Your task to perform on an android device: Open the stopwatch Image 0: 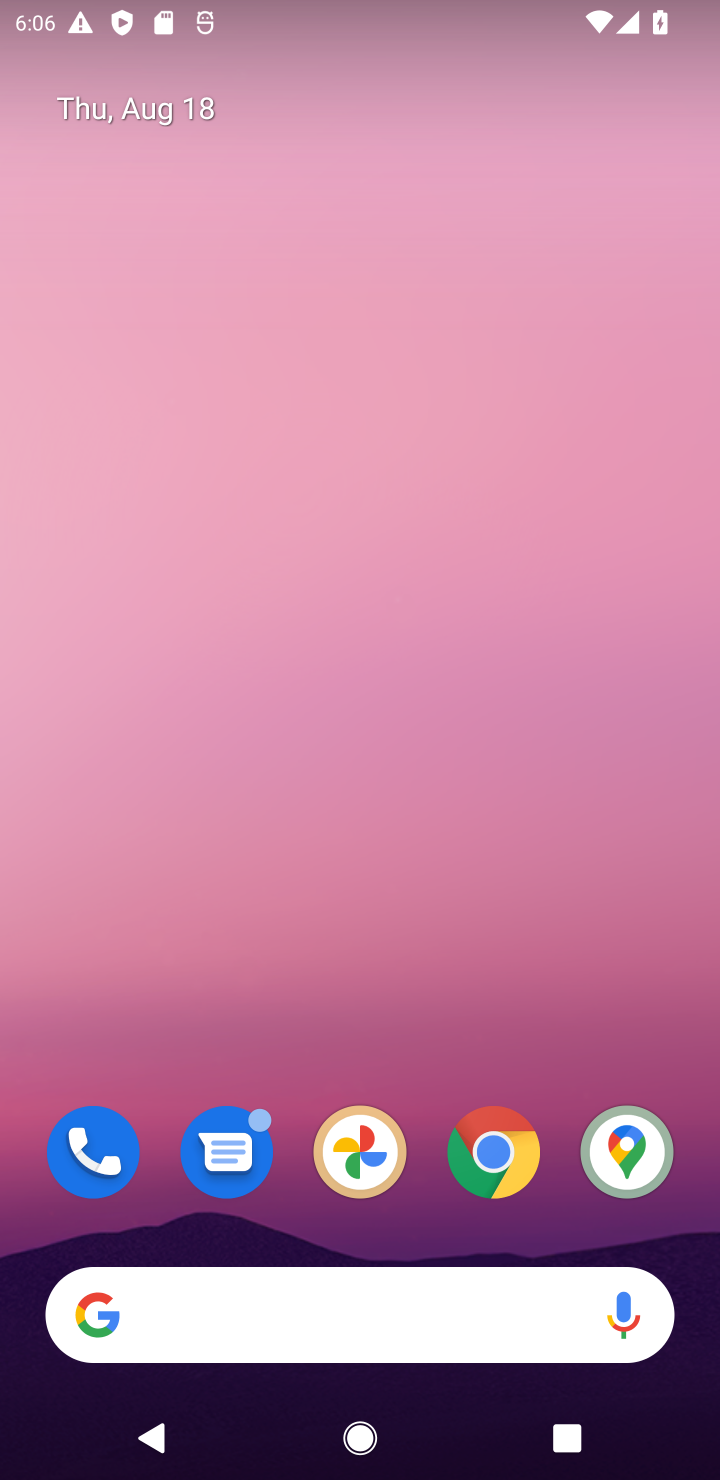
Step 0: press home button
Your task to perform on an android device: Open the stopwatch Image 1: 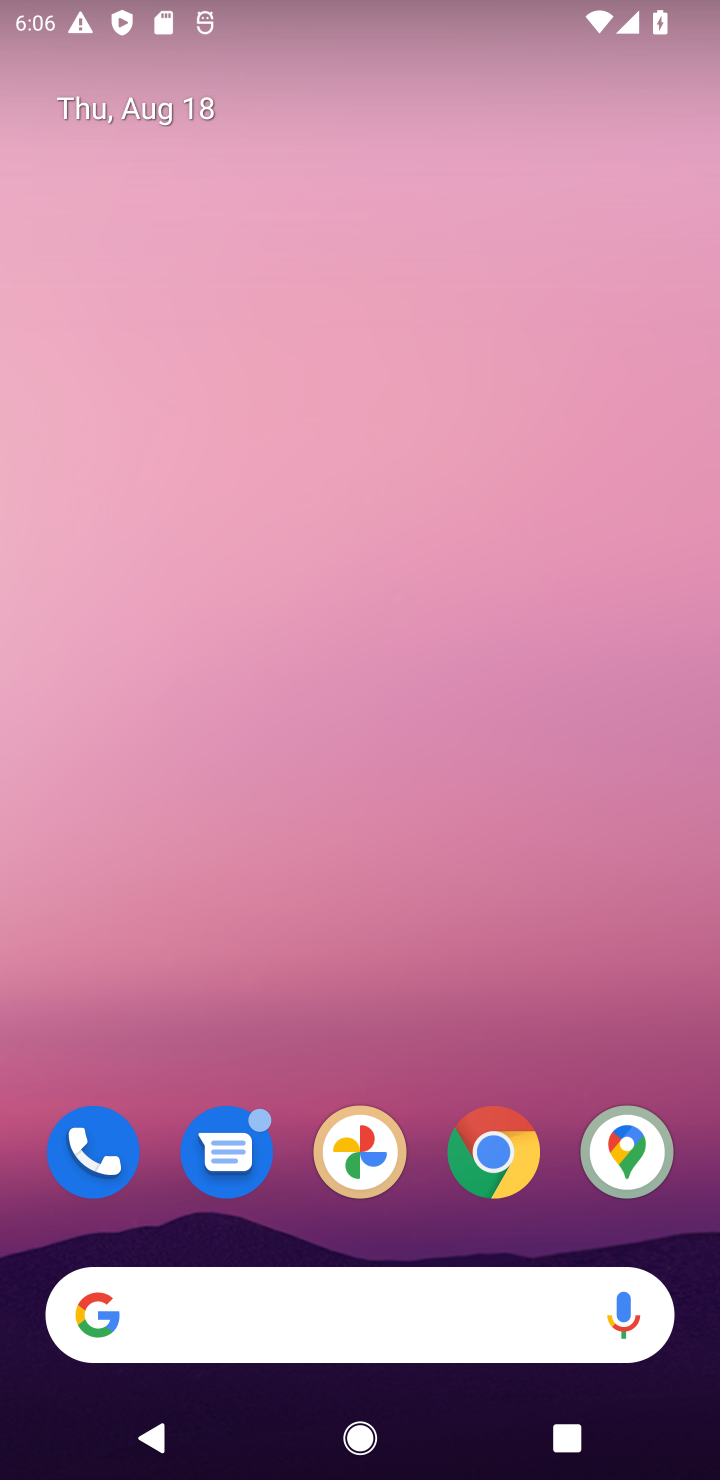
Step 1: drag from (438, 1212) to (498, 265)
Your task to perform on an android device: Open the stopwatch Image 2: 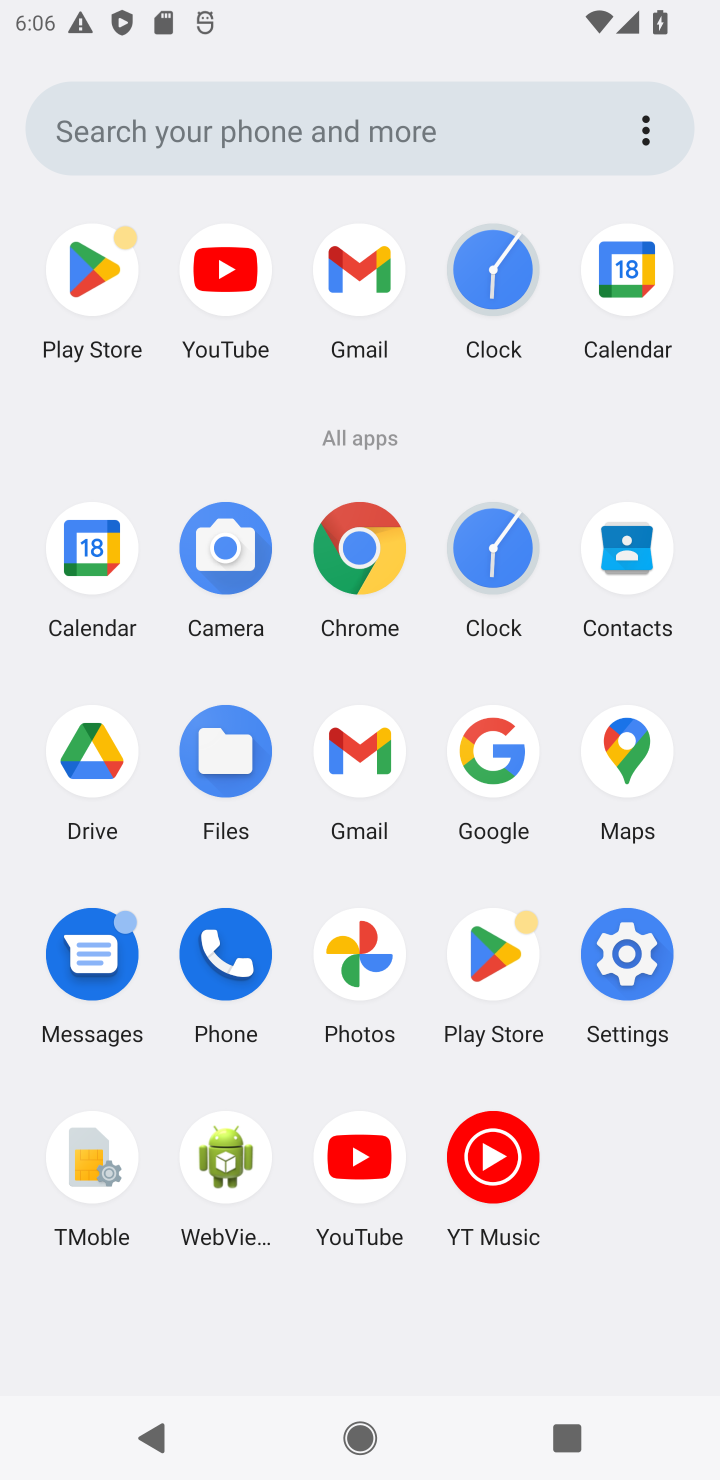
Step 2: click (515, 562)
Your task to perform on an android device: Open the stopwatch Image 3: 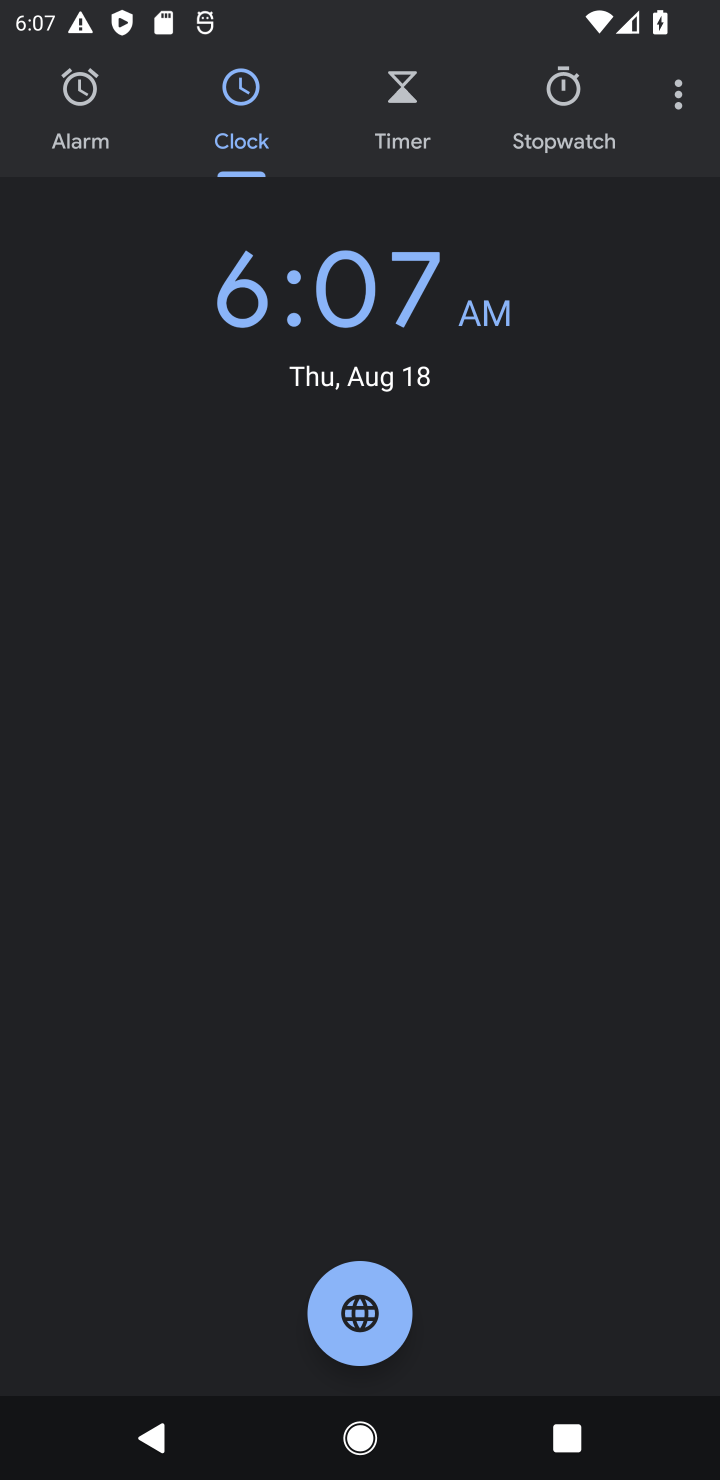
Step 3: click (570, 124)
Your task to perform on an android device: Open the stopwatch Image 4: 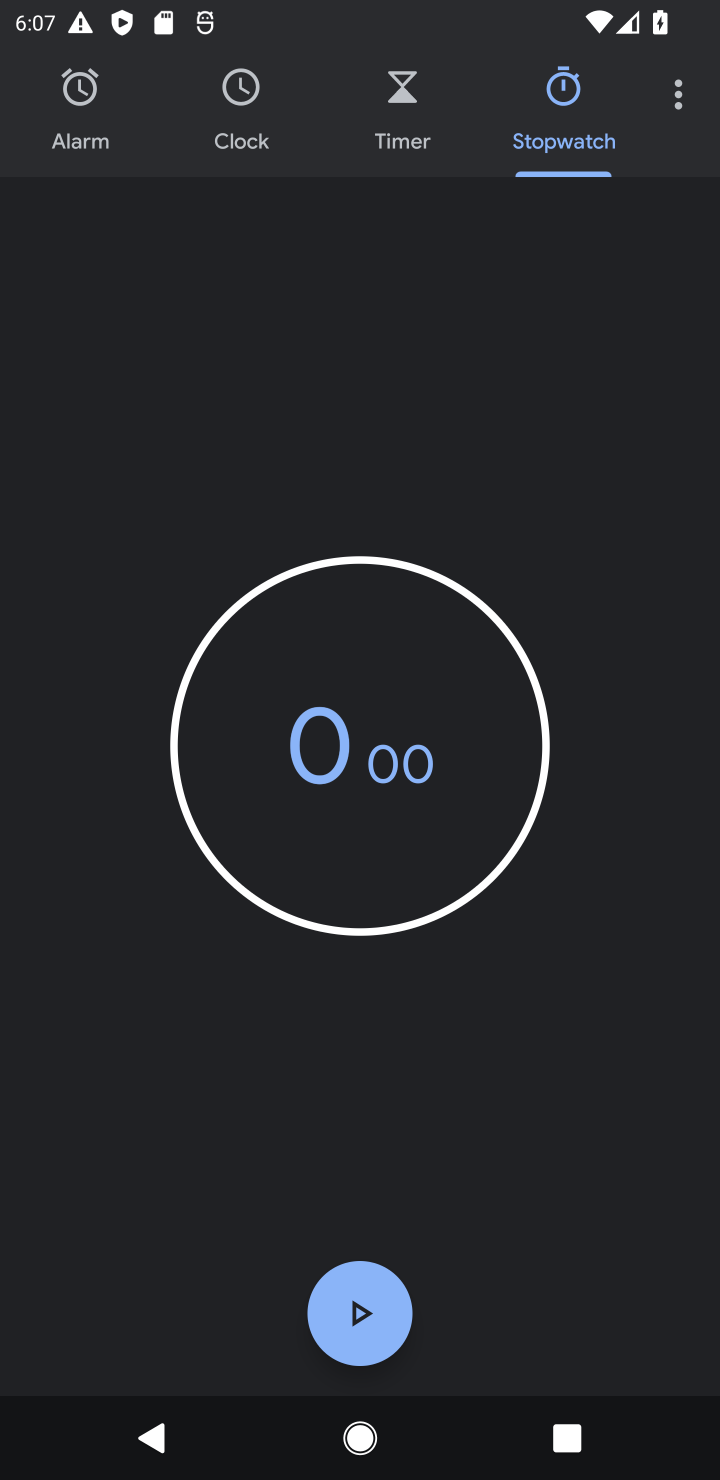
Step 4: click (375, 1327)
Your task to perform on an android device: Open the stopwatch Image 5: 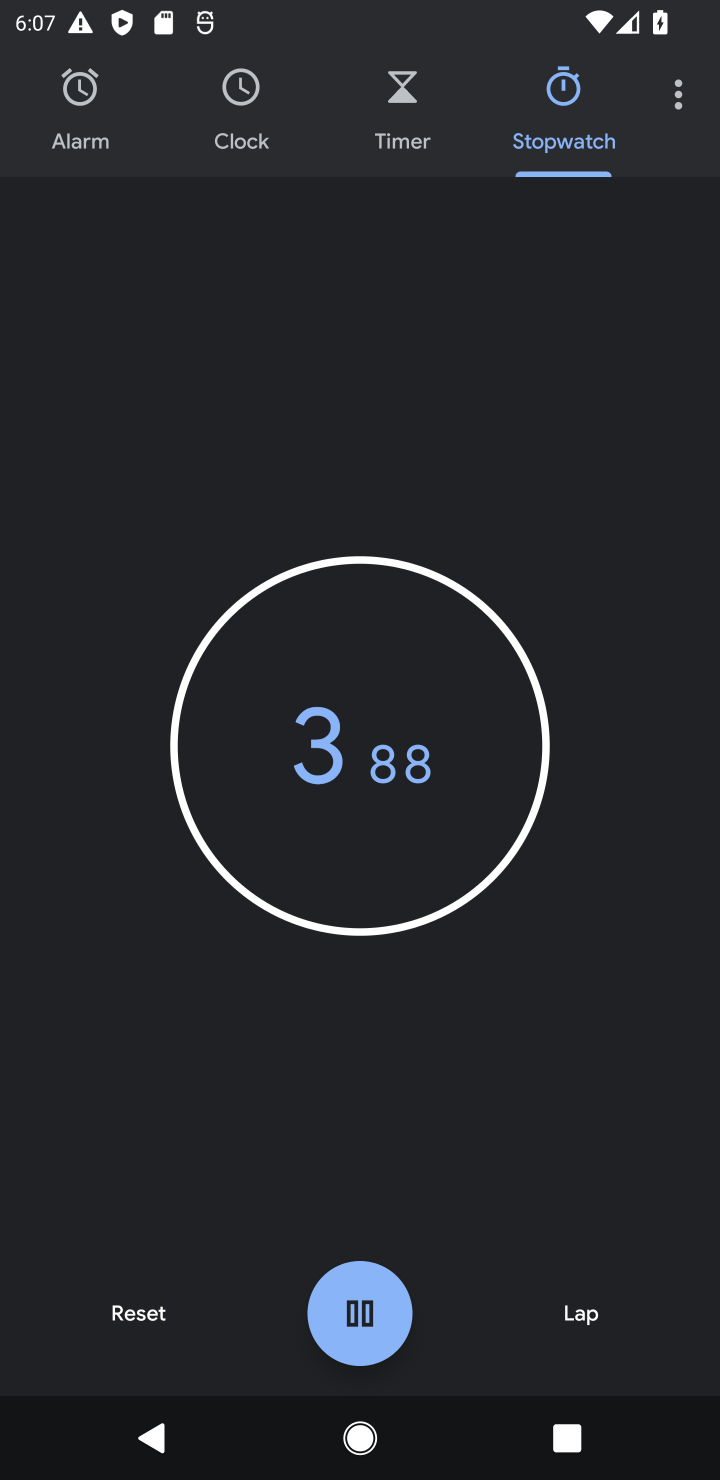
Step 5: task complete